Your task to perform on an android device: find photos in the google photos app Image 0: 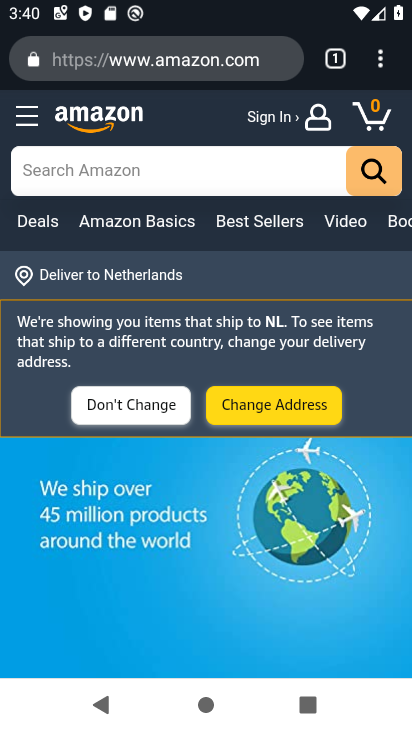
Step 0: press back button
Your task to perform on an android device: find photos in the google photos app Image 1: 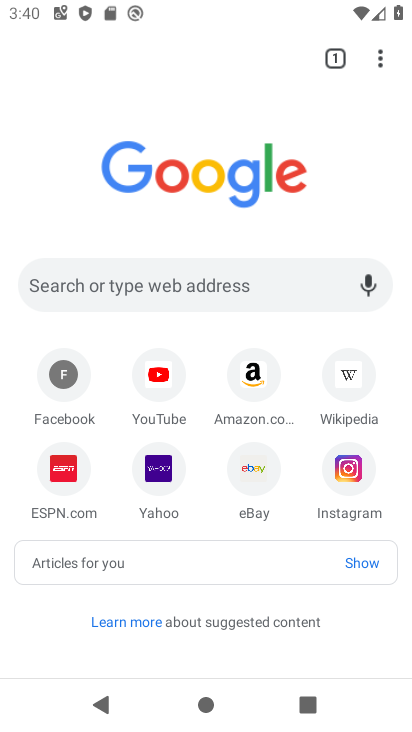
Step 1: press back button
Your task to perform on an android device: find photos in the google photos app Image 2: 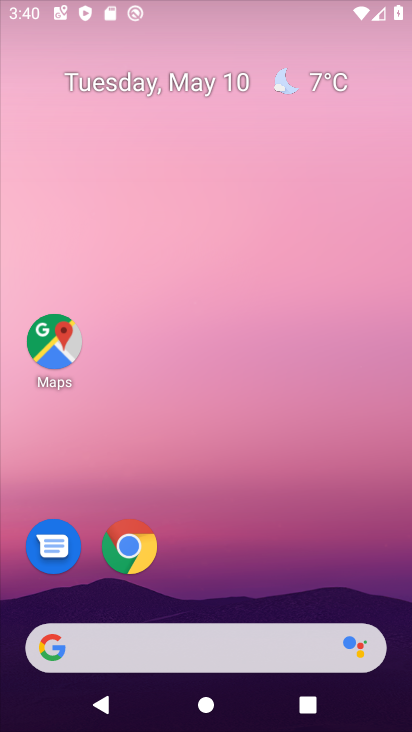
Step 2: drag from (257, 568) to (319, 85)
Your task to perform on an android device: find photos in the google photos app Image 3: 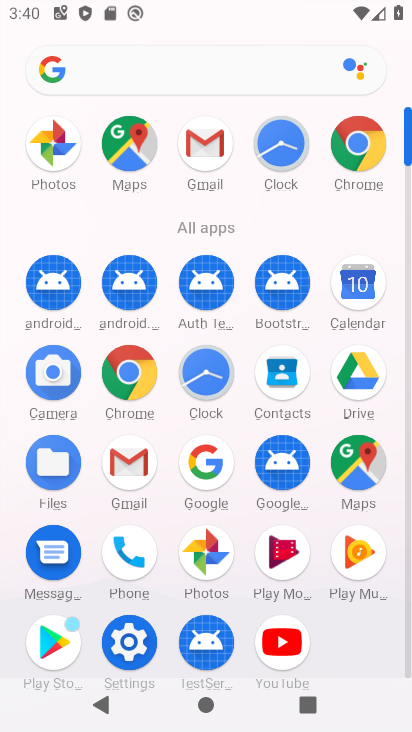
Step 3: click (205, 567)
Your task to perform on an android device: find photos in the google photos app Image 4: 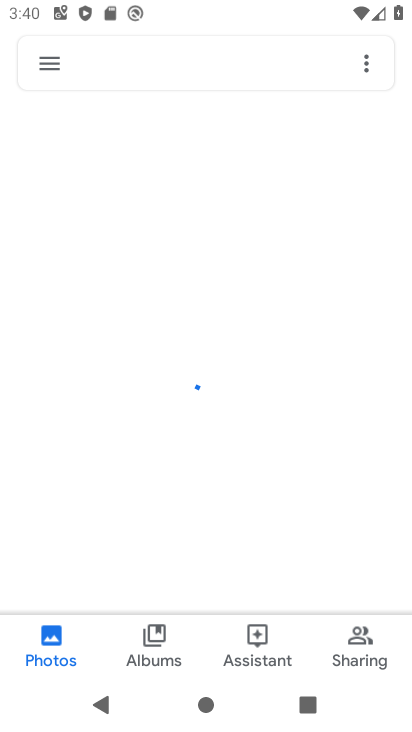
Step 4: click (49, 637)
Your task to perform on an android device: find photos in the google photos app Image 5: 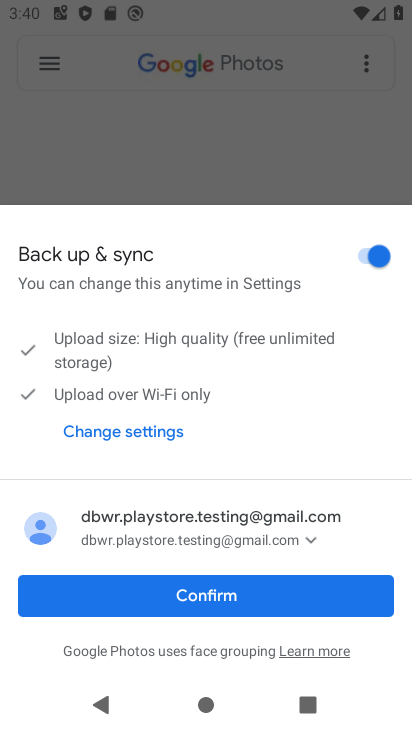
Step 5: click (228, 594)
Your task to perform on an android device: find photos in the google photos app Image 6: 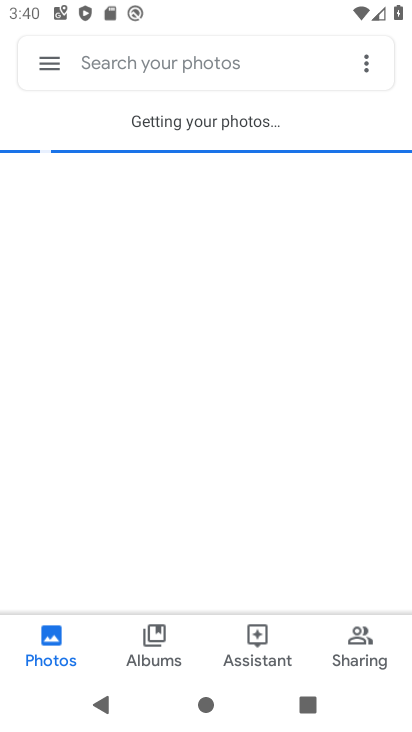
Step 6: click (56, 649)
Your task to perform on an android device: find photos in the google photos app Image 7: 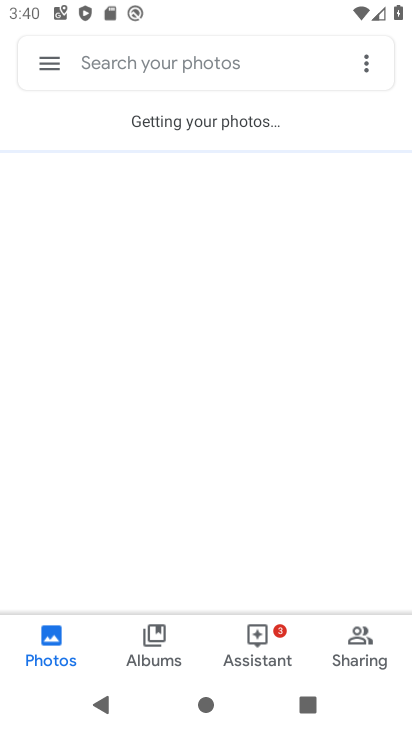
Step 7: task complete